Your task to perform on an android device: Do I have any events tomorrow? Image 0: 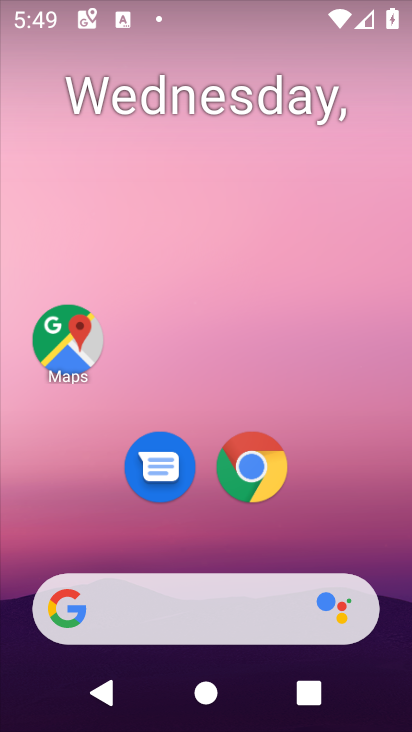
Step 0: drag from (304, 374) to (231, 27)
Your task to perform on an android device: Do I have any events tomorrow? Image 1: 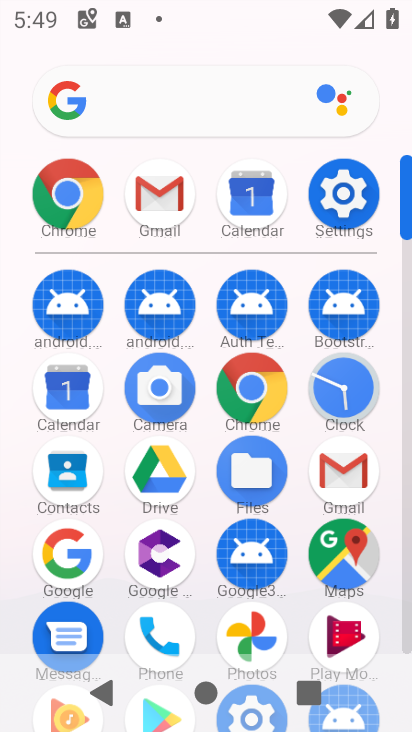
Step 1: click (243, 204)
Your task to perform on an android device: Do I have any events tomorrow? Image 2: 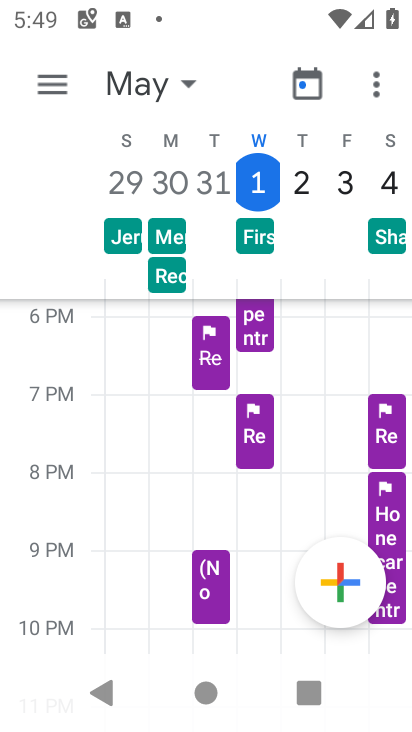
Step 2: task complete